Your task to perform on an android device: install app "Truecaller" Image 0: 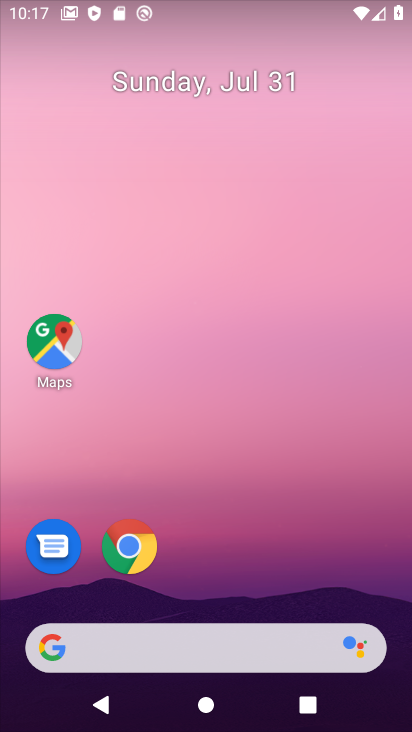
Step 0: drag from (250, 633) to (231, 40)
Your task to perform on an android device: install app "Truecaller" Image 1: 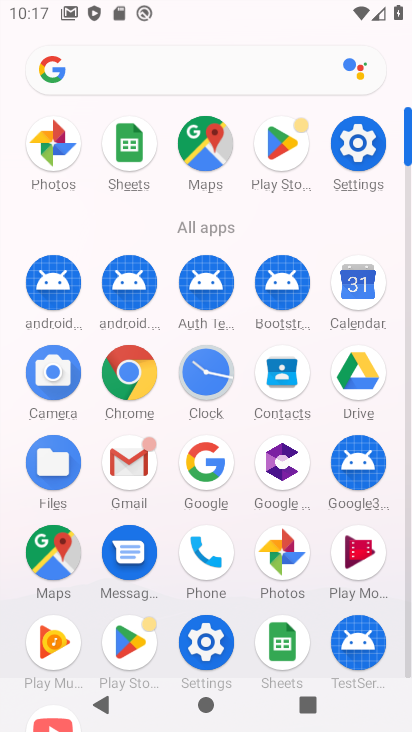
Step 1: click (299, 152)
Your task to perform on an android device: install app "Truecaller" Image 2: 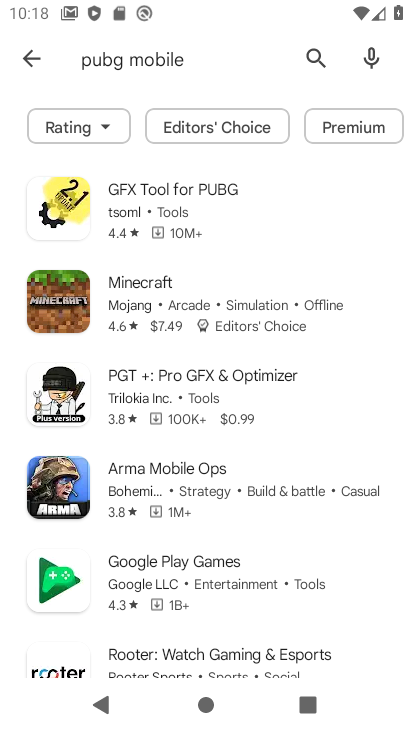
Step 2: click (316, 54)
Your task to perform on an android device: install app "Truecaller" Image 3: 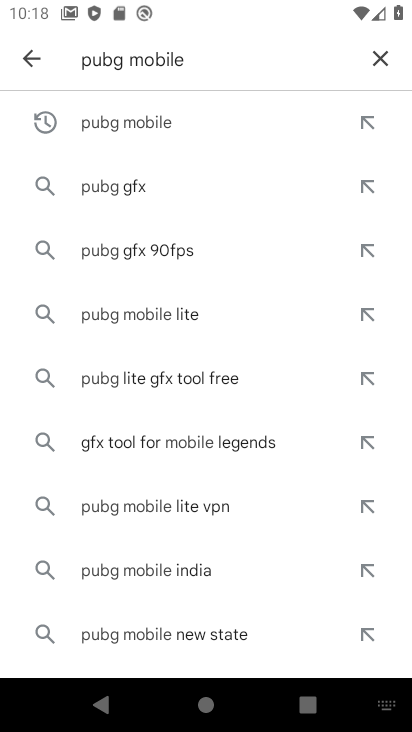
Step 3: click (382, 64)
Your task to perform on an android device: install app "Truecaller" Image 4: 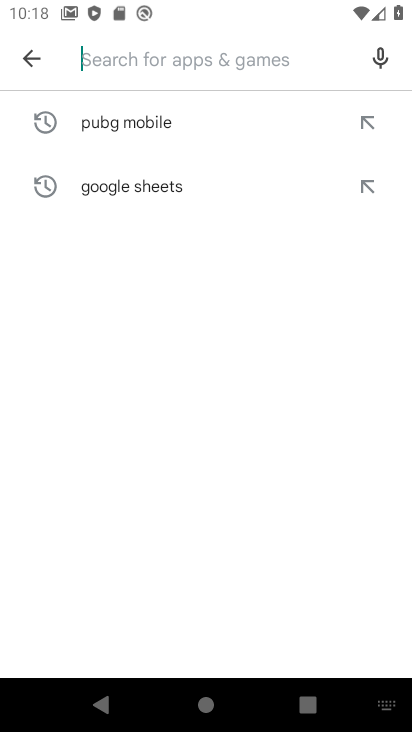
Step 4: type "truecaller"
Your task to perform on an android device: install app "Truecaller" Image 5: 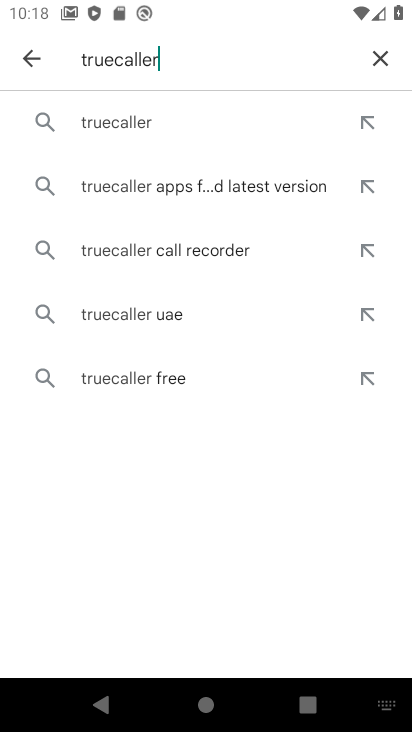
Step 5: click (244, 122)
Your task to perform on an android device: install app "Truecaller" Image 6: 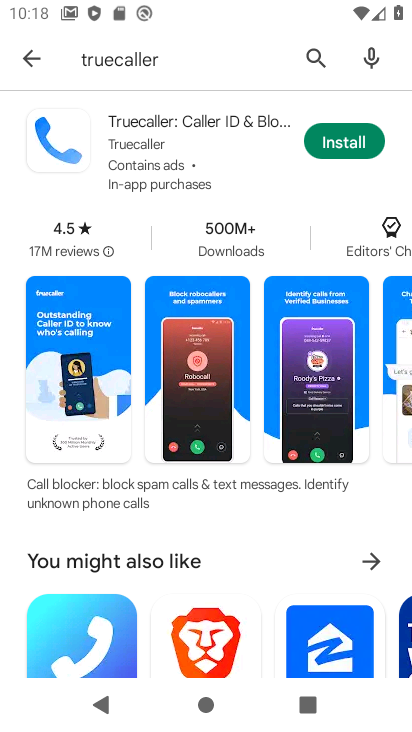
Step 6: click (357, 139)
Your task to perform on an android device: install app "Truecaller" Image 7: 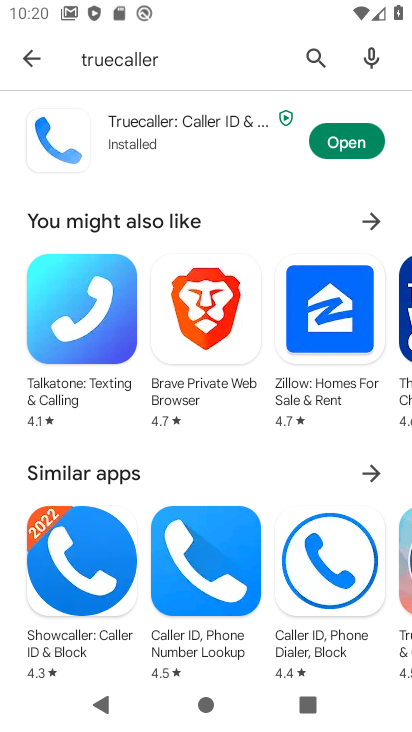
Step 7: task complete